Your task to perform on an android device: change the clock style Image 0: 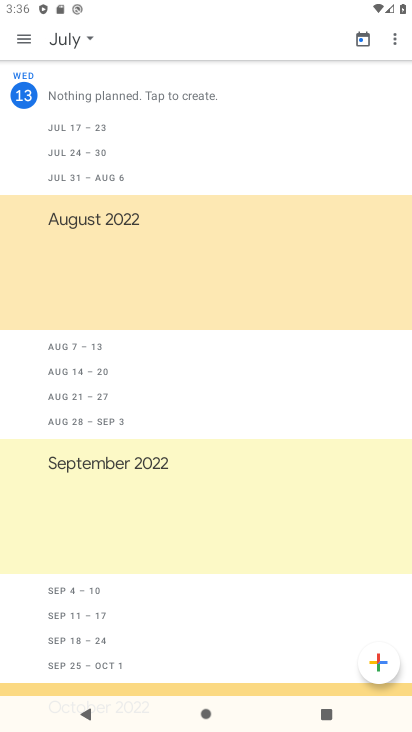
Step 0: press home button
Your task to perform on an android device: change the clock style Image 1: 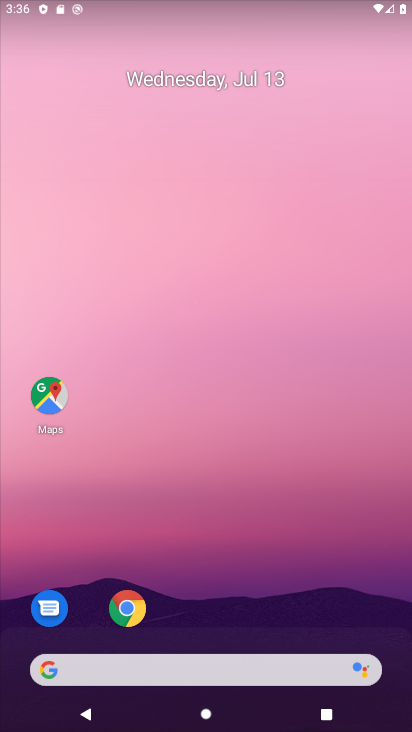
Step 1: drag from (250, 629) to (333, 160)
Your task to perform on an android device: change the clock style Image 2: 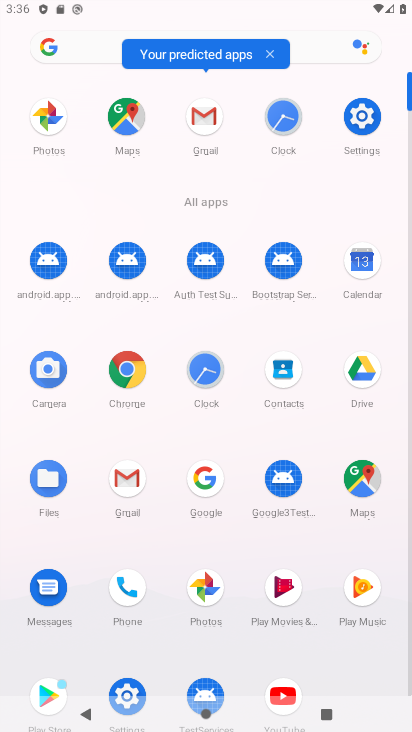
Step 2: click (212, 370)
Your task to perform on an android device: change the clock style Image 3: 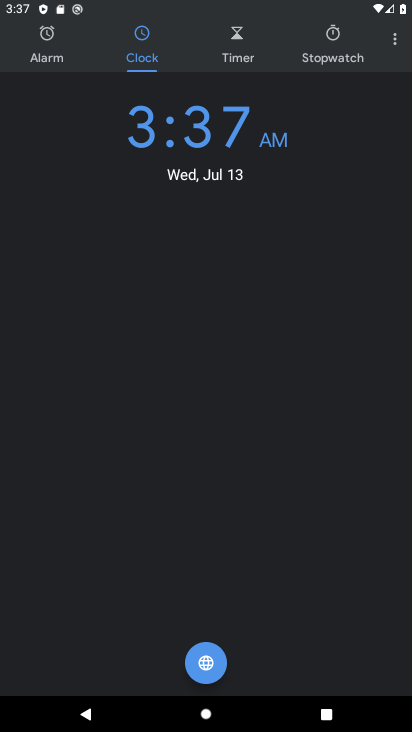
Step 3: click (387, 46)
Your task to perform on an android device: change the clock style Image 4: 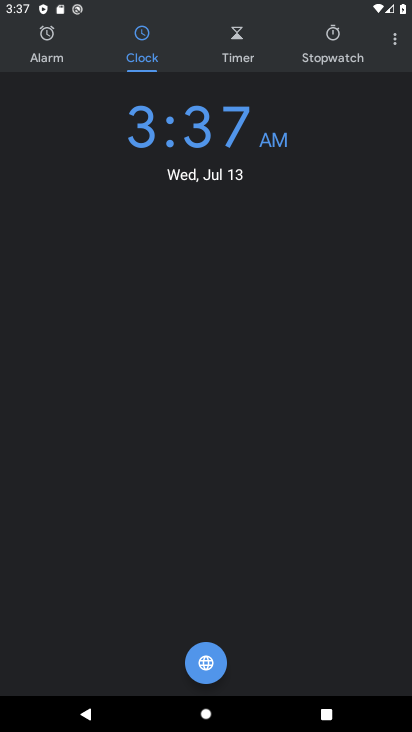
Step 4: click (390, 43)
Your task to perform on an android device: change the clock style Image 5: 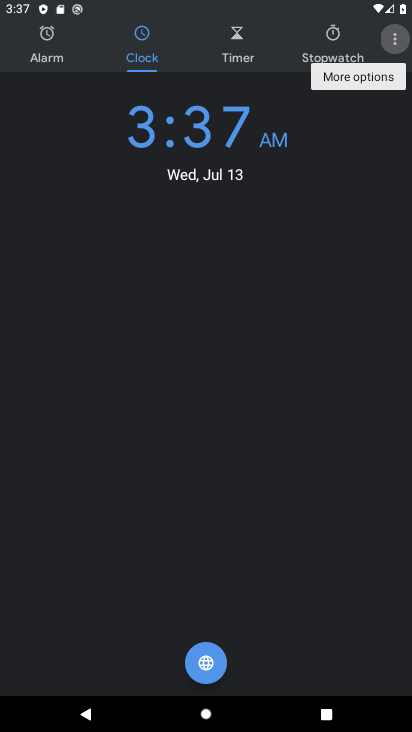
Step 5: click (397, 38)
Your task to perform on an android device: change the clock style Image 6: 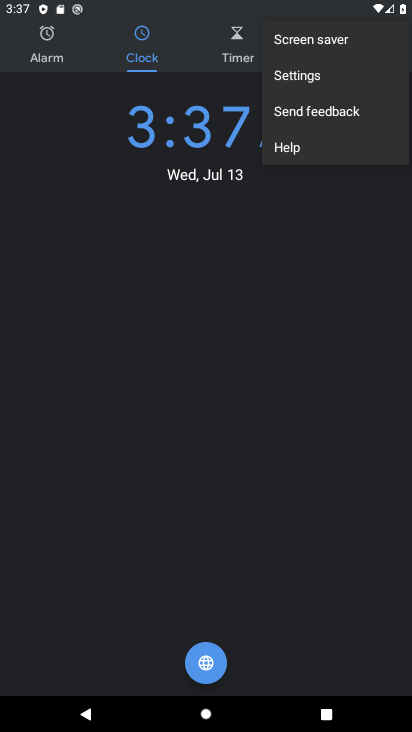
Step 6: click (345, 67)
Your task to perform on an android device: change the clock style Image 7: 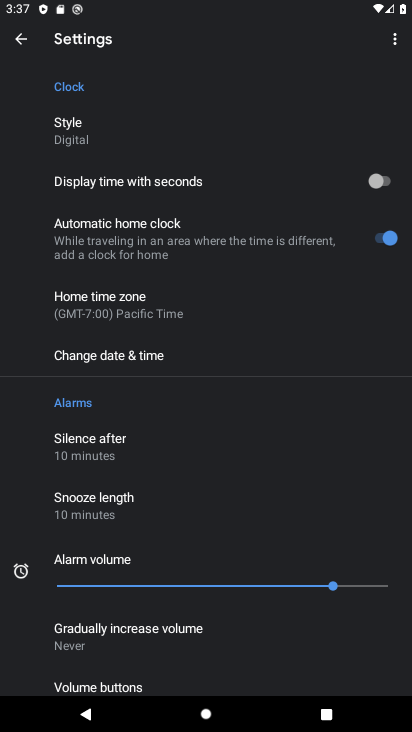
Step 7: click (126, 128)
Your task to perform on an android device: change the clock style Image 8: 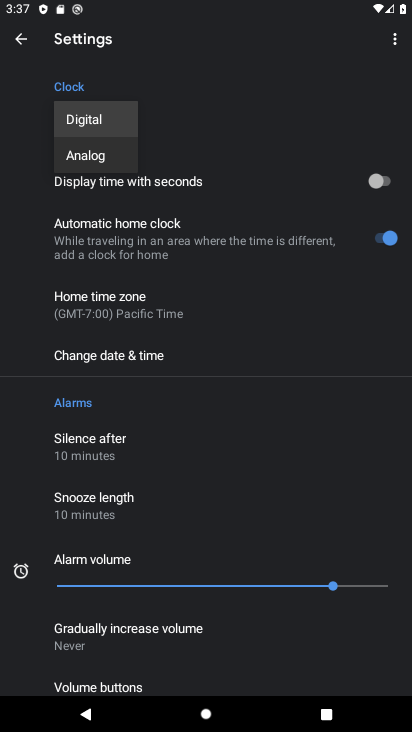
Step 8: click (96, 162)
Your task to perform on an android device: change the clock style Image 9: 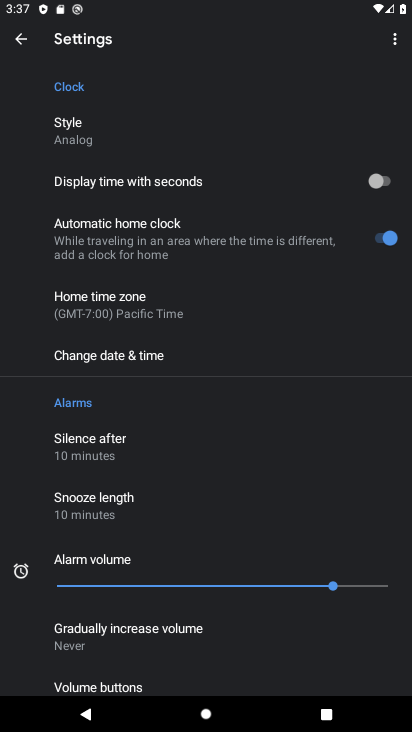
Step 9: task complete